Your task to perform on an android device: change text size in settings app Image 0: 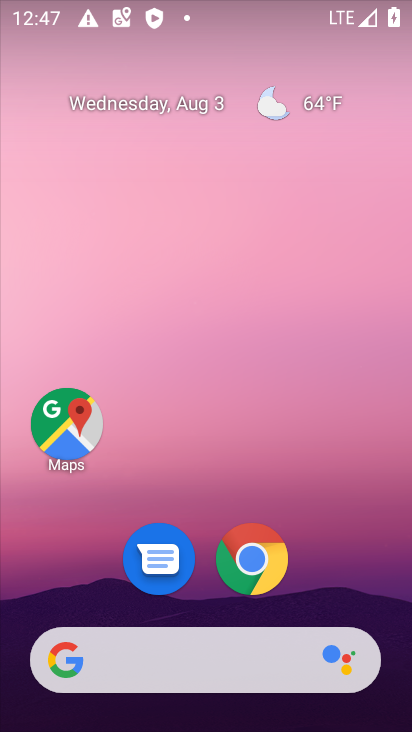
Step 0: drag from (204, 517) to (208, 77)
Your task to perform on an android device: change text size in settings app Image 1: 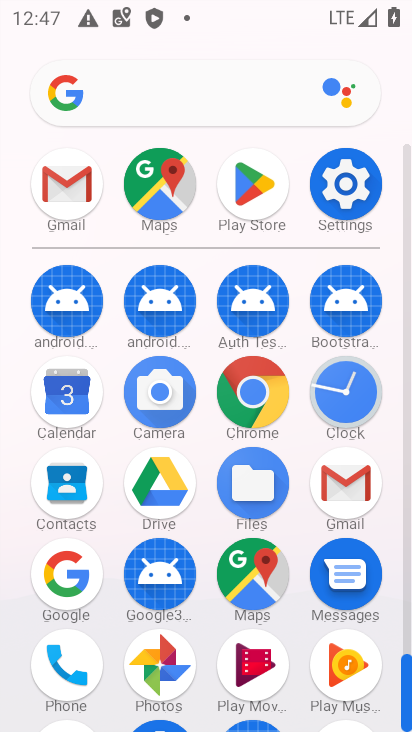
Step 1: click (342, 180)
Your task to perform on an android device: change text size in settings app Image 2: 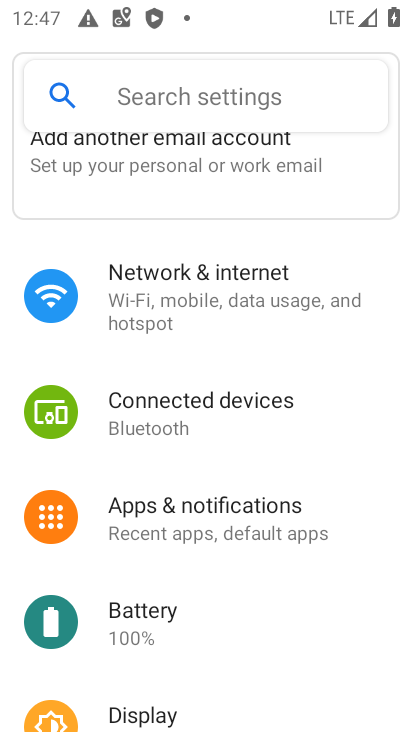
Step 2: drag from (204, 672) to (200, 276)
Your task to perform on an android device: change text size in settings app Image 3: 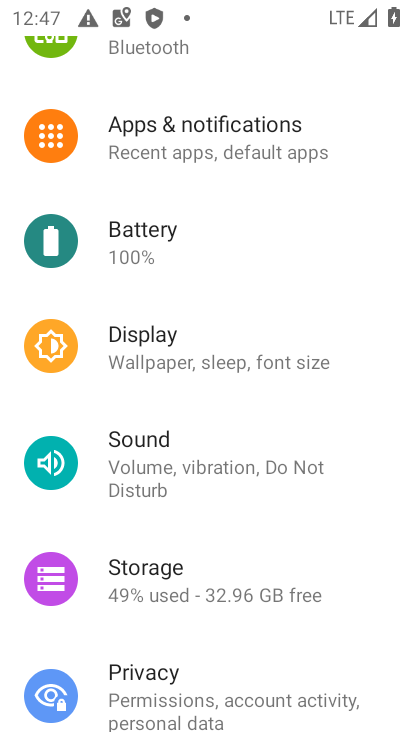
Step 3: click (212, 368)
Your task to perform on an android device: change text size in settings app Image 4: 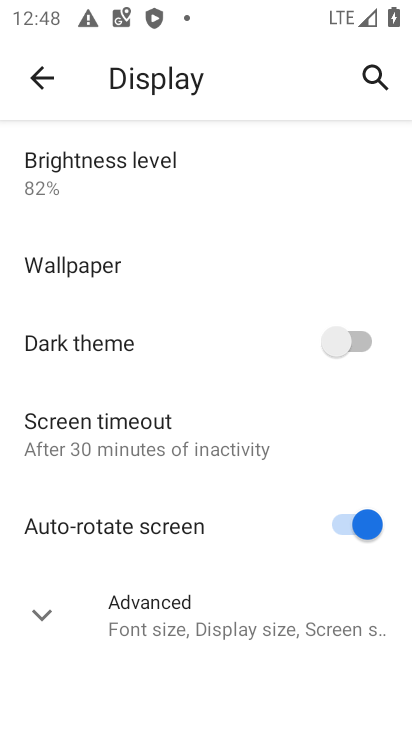
Step 4: click (248, 629)
Your task to perform on an android device: change text size in settings app Image 5: 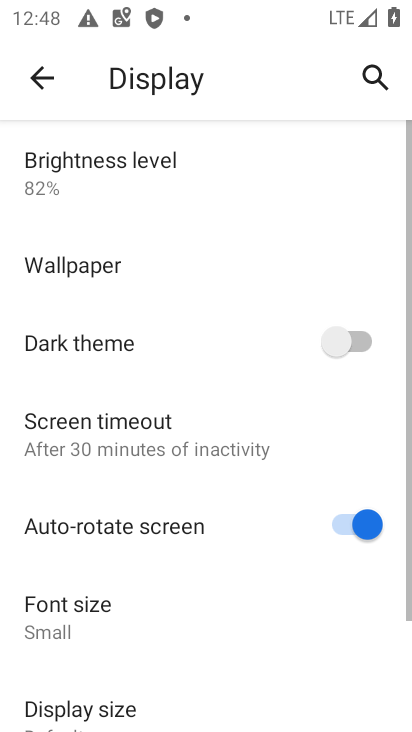
Step 5: drag from (138, 672) to (113, 291)
Your task to perform on an android device: change text size in settings app Image 6: 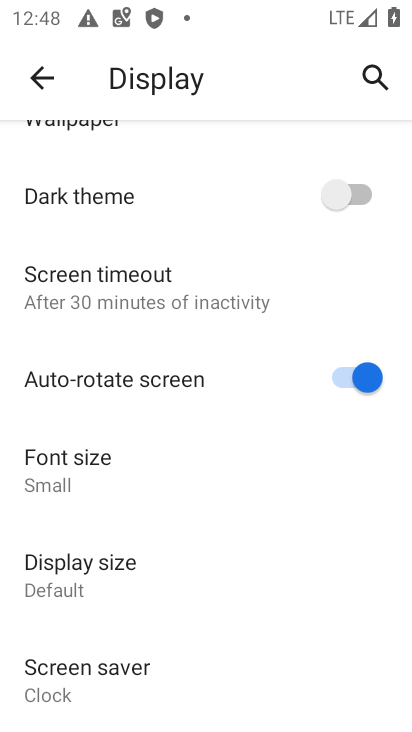
Step 6: click (54, 470)
Your task to perform on an android device: change text size in settings app Image 7: 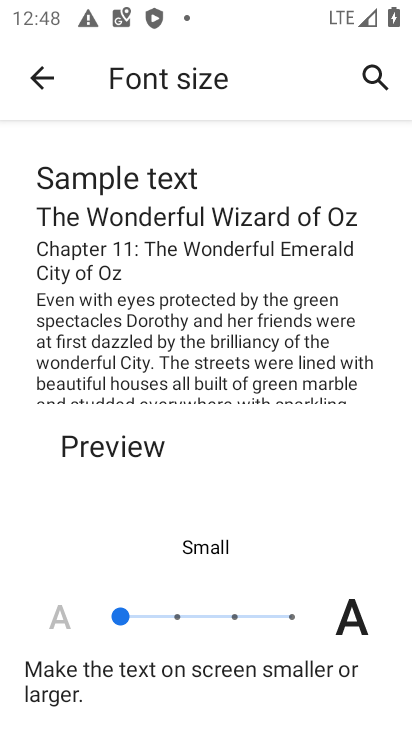
Step 7: click (177, 610)
Your task to perform on an android device: change text size in settings app Image 8: 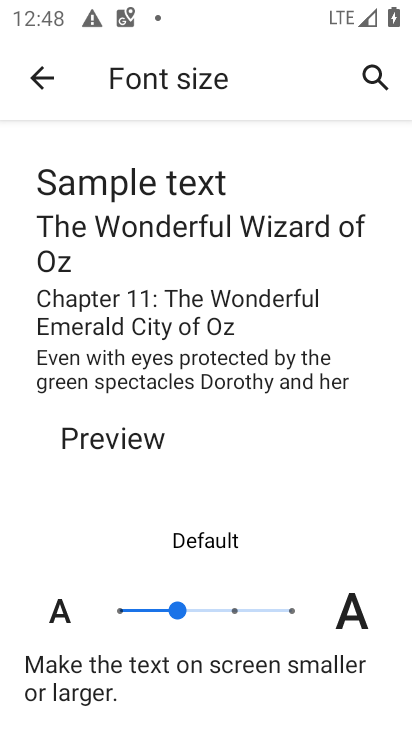
Step 8: task complete